Your task to perform on an android device: Open Google Maps Image 0: 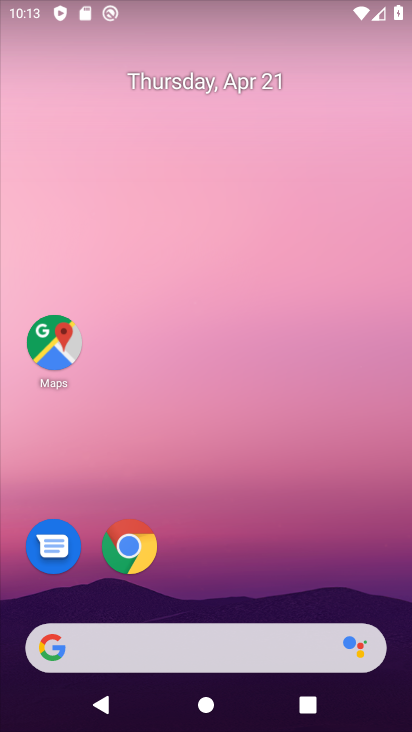
Step 0: drag from (212, 687) to (211, 123)
Your task to perform on an android device: Open Google Maps Image 1: 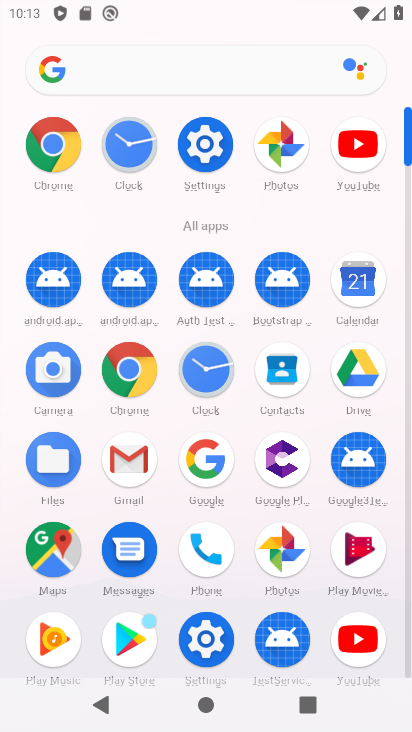
Step 1: click (52, 536)
Your task to perform on an android device: Open Google Maps Image 2: 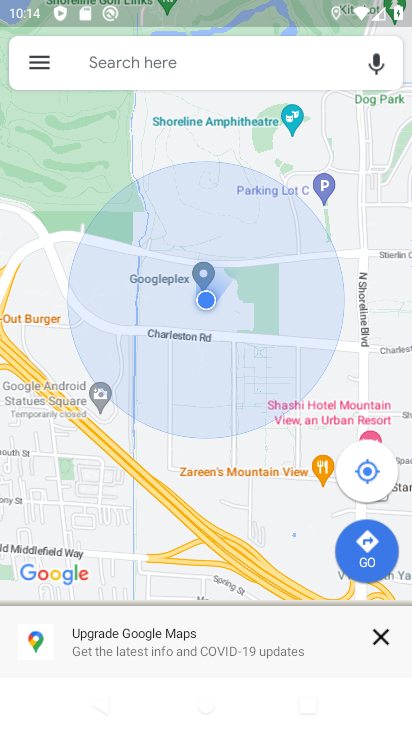
Step 2: task complete